Your task to perform on an android device: turn on data saver in the chrome app Image 0: 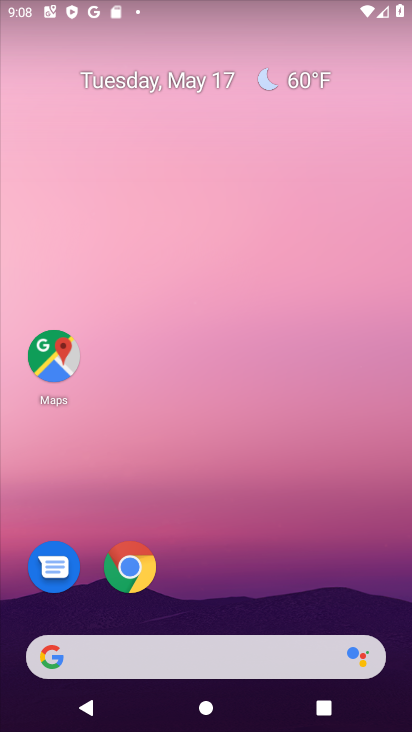
Step 0: drag from (367, 579) to (307, 50)
Your task to perform on an android device: turn on data saver in the chrome app Image 1: 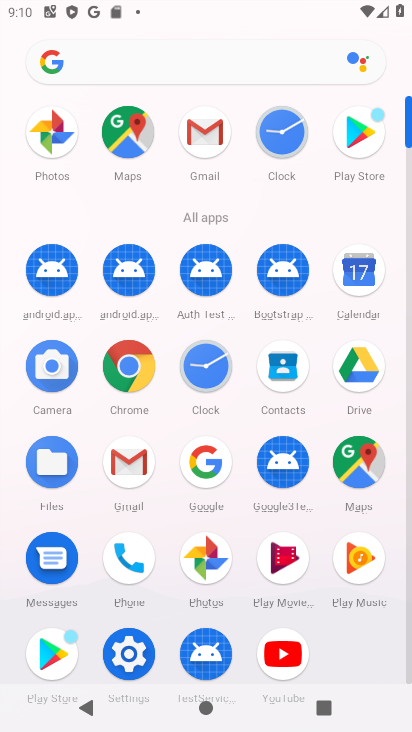
Step 1: click (125, 363)
Your task to perform on an android device: turn on data saver in the chrome app Image 2: 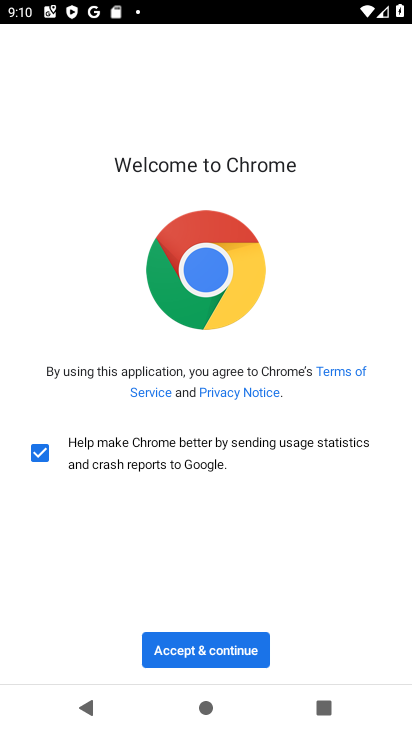
Step 2: click (219, 649)
Your task to perform on an android device: turn on data saver in the chrome app Image 3: 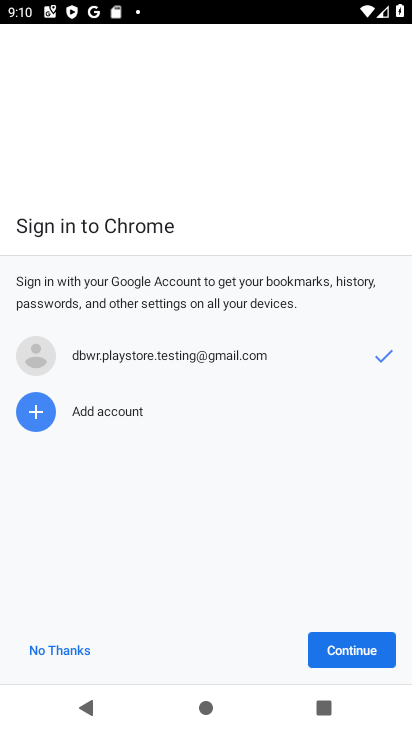
Step 3: click (339, 645)
Your task to perform on an android device: turn on data saver in the chrome app Image 4: 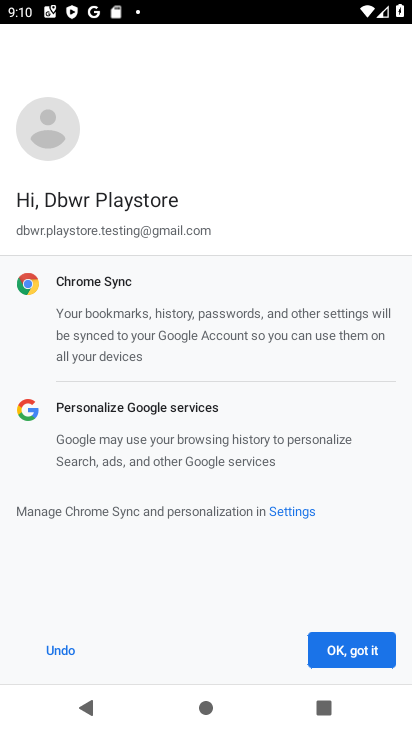
Step 4: click (339, 645)
Your task to perform on an android device: turn on data saver in the chrome app Image 5: 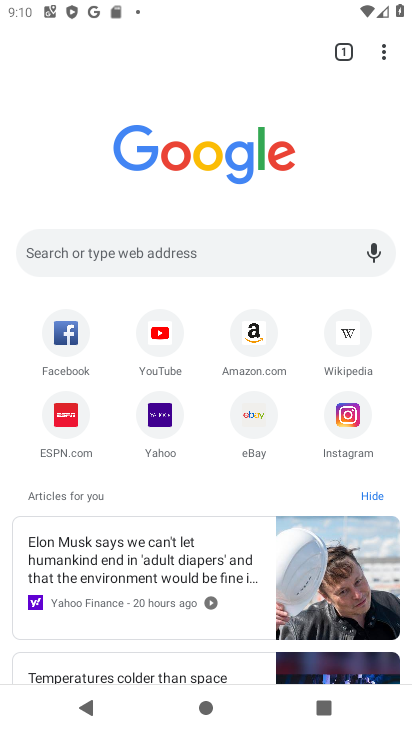
Step 5: click (385, 44)
Your task to perform on an android device: turn on data saver in the chrome app Image 6: 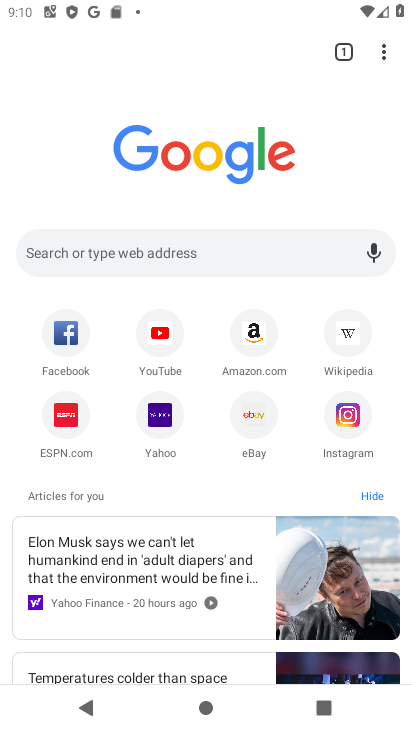
Step 6: click (385, 44)
Your task to perform on an android device: turn on data saver in the chrome app Image 7: 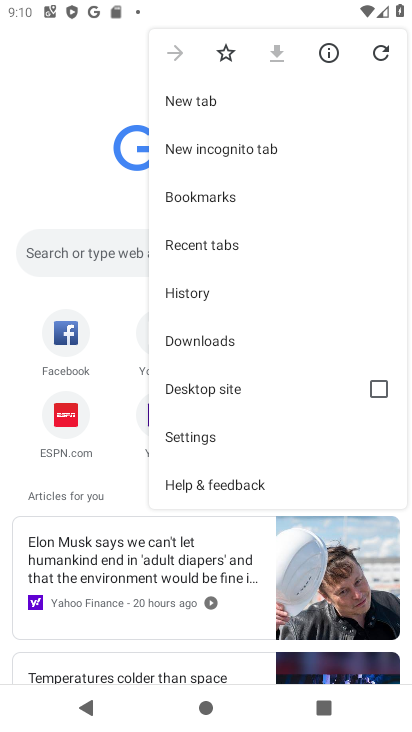
Step 7: click (224, 436)
Your task to perform on an android device: turn on data saver in the chrome app Image 8: 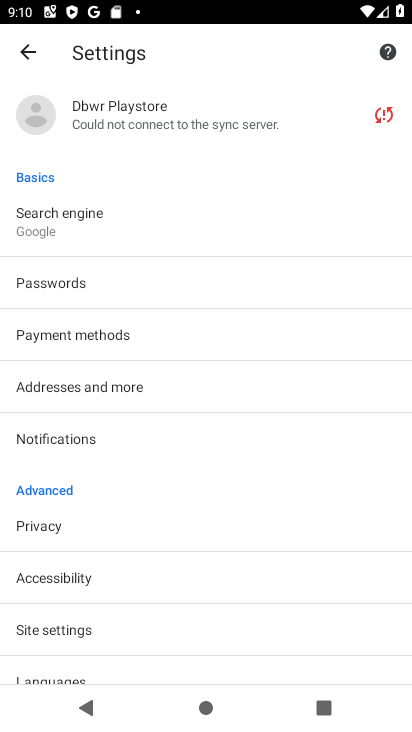
Step 8: drag from (83, 631) to (145, 192)
Your task to perform on an android device: turn on data saver in the chrome app Image 9: 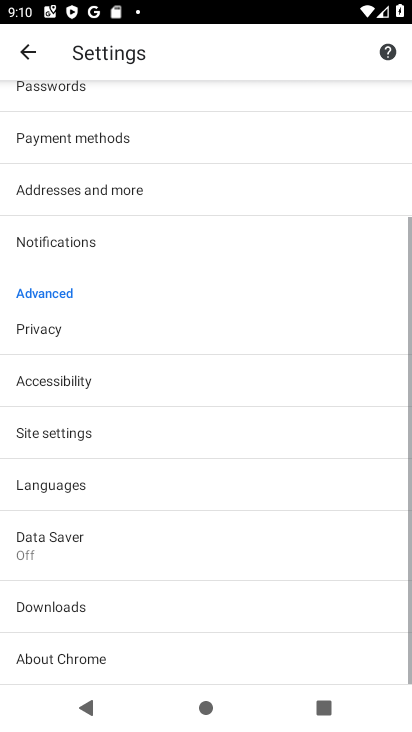
Step 9: click (85, 555)
Your task to perform on an android device: turn on data saver in the chrome app Image 10: 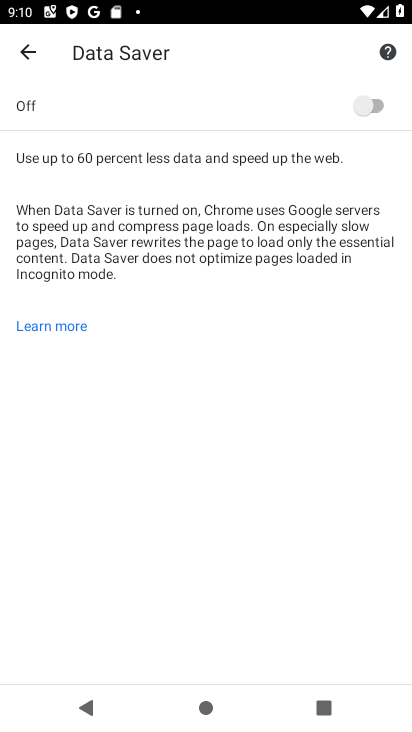
Step 10: click (350, 99)
Your task to perform on an android device: turn on data saver in the chrome app Image 11: 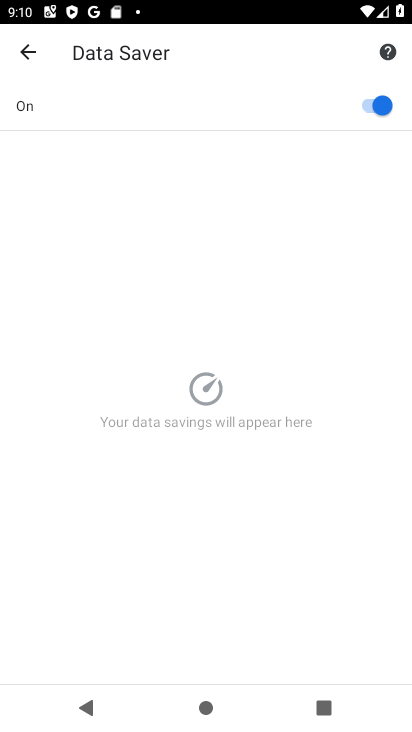
Step 11: task complete